Your task to perform on an android device: choose inbox layout in the gmail app Image 0: 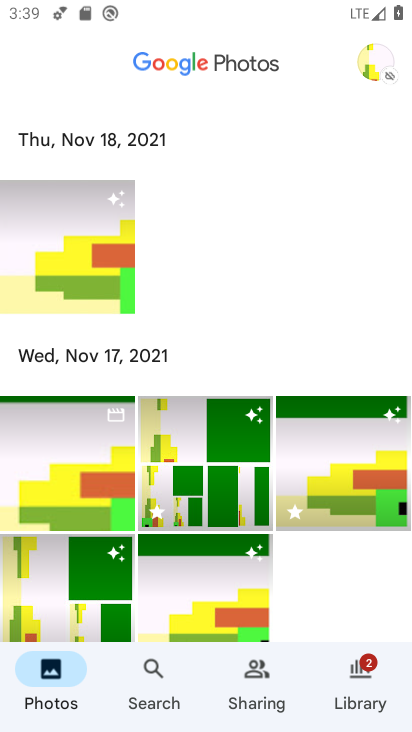
Step 0: press home button
Your task to perform on an android device: choose inbox layout in the gmail app Image 1: 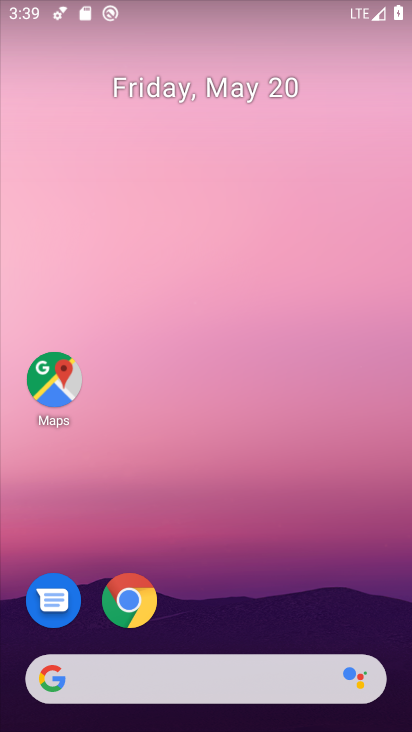
Step 1: drag from (347, 609) to (343, 258)
Your task to perform on an android device: choose inbox layout in the gmail app Image 2: 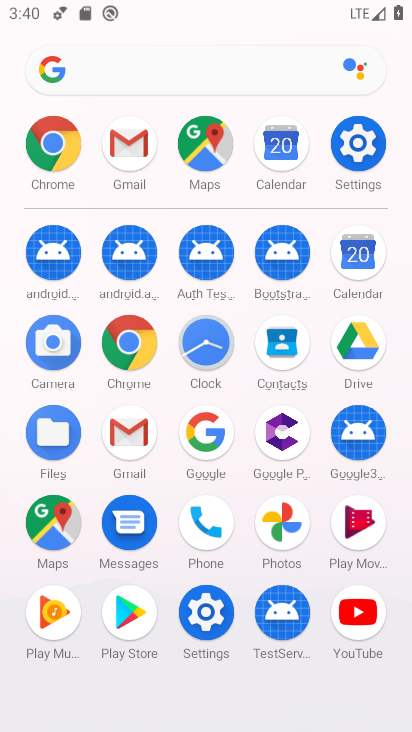
Step 2: click (143, 446)
Your task to perform on an android device: choose inbox layout in the gmail app Image 3: 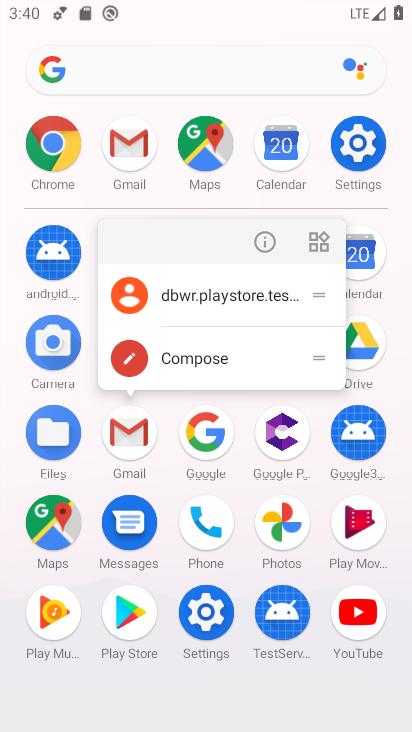
Step 3: click (140, 440)
Your task to perform on an android device: choose inbox layout in the gmail app Image 4: 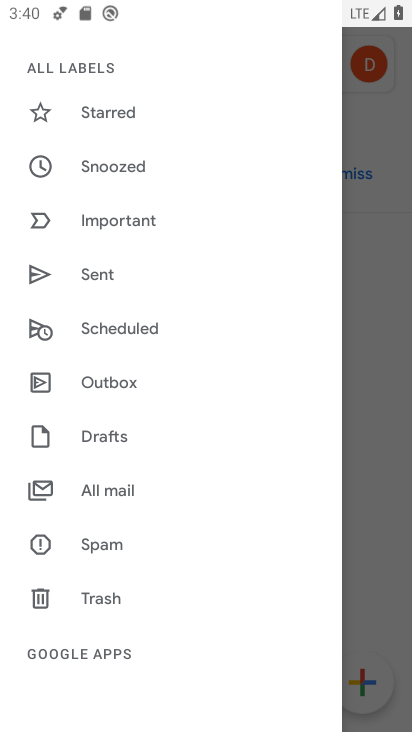
Step 4: drag from (231, 314) to (218, 413)
Your task to perform on an android device: choose inbox layout in the gmail app Image 5: 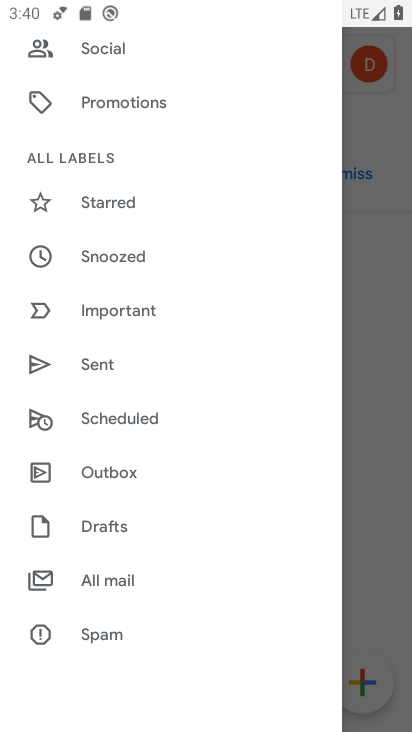
Step 5: drag from (235, 292) to (236, 387)
Your task to perform on an android device: choose inbox layout in the gmail app Image 6: 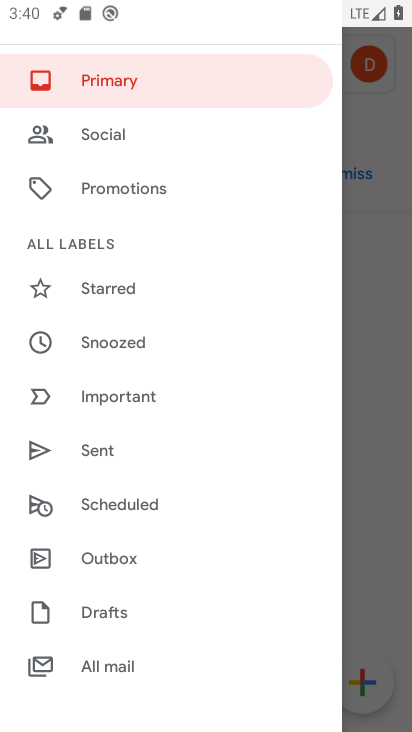
Step 6: drag from (251, 419) to (250, 359)
Your task to perform on an android device: choose inbox layout in the gmail app Image 7: 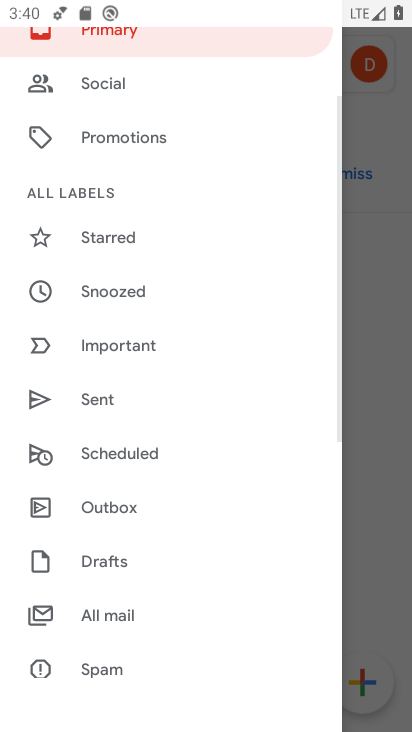
Step 7: drag from (251, 457) to (253, 389)
Your task to perform on an android device: choose inbox layout in the gmail app Image 8: 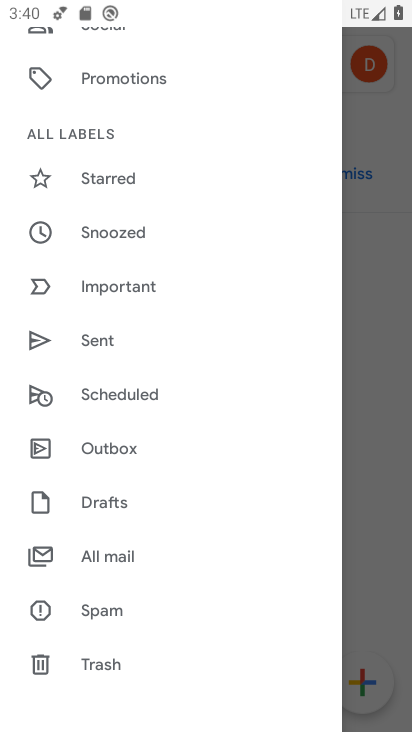
Step 8: drag from (253, 484) to (255, 406)
Your task to perform on an android device: choose inbox layout in the gmail app Image 9: 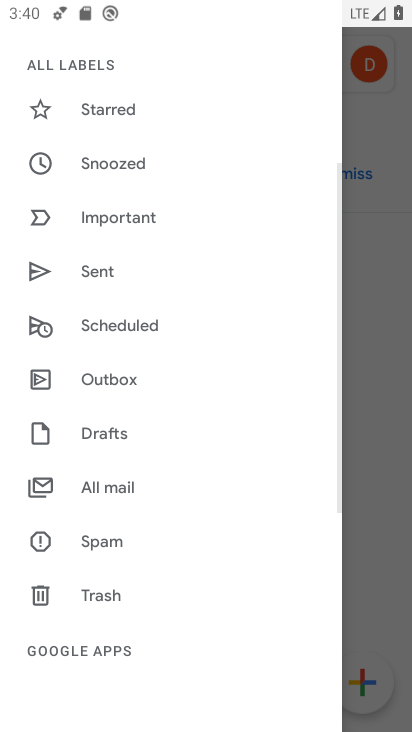
Step 9: drag from (243, 492) to (246, 390)
Your task to perform on an android device: choose inbox layout in the gmail app Image 10: 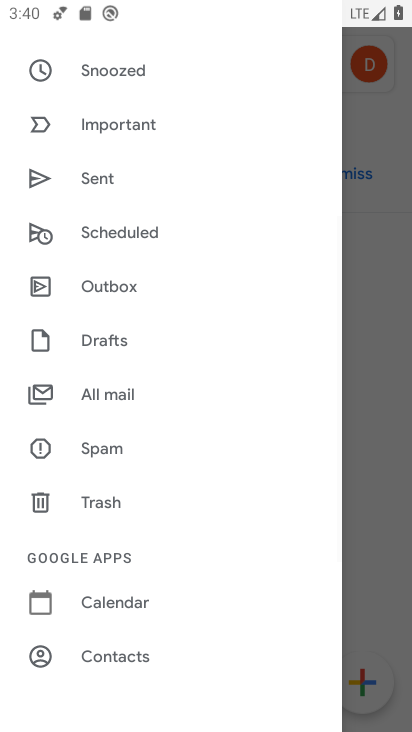
Step 10: drag from (237, 518) to (287, 352)
Your task to perform on an android device: choose inbox layout in the gmail app Image 11: 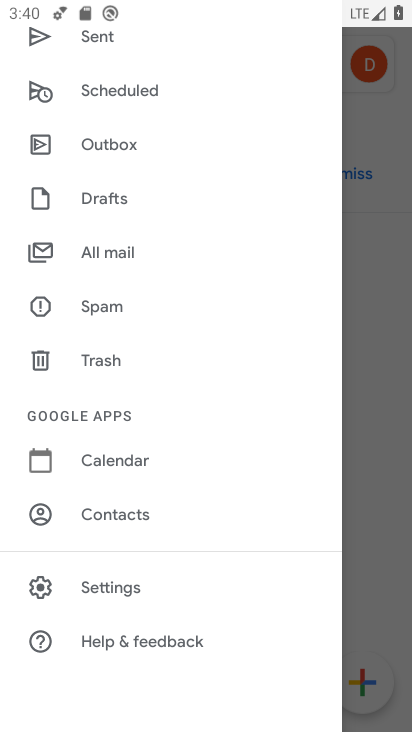
Step 11: click (158, 603)
Your task to perform on an android device: choose inbox layout in the gmail app Image 12: 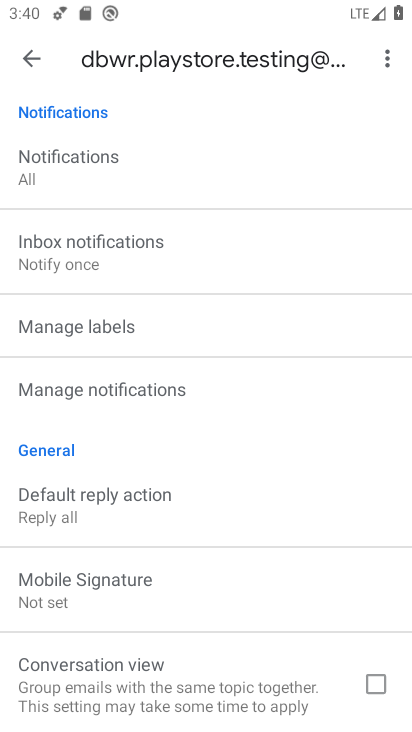
Step 12: drag from (227, 528) to (234, 485)
Your task to perform on an android device: choose inbox layout in the gmail app Image 13: 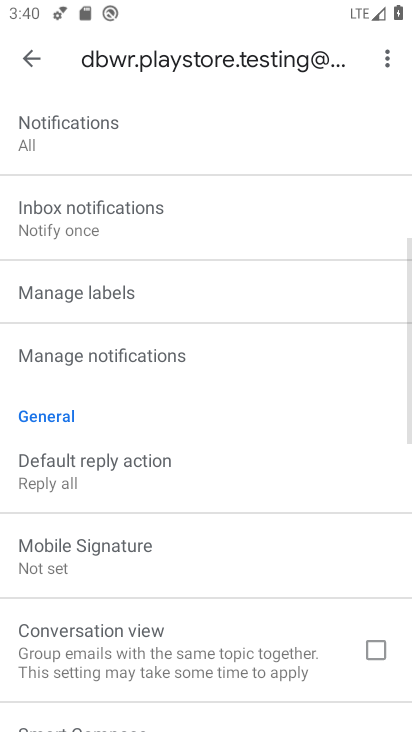
Step 13: drag from (237, 596) to (248, 505)
Your task to perform on an android device: choose inbox layout in the gmail app Image 14: 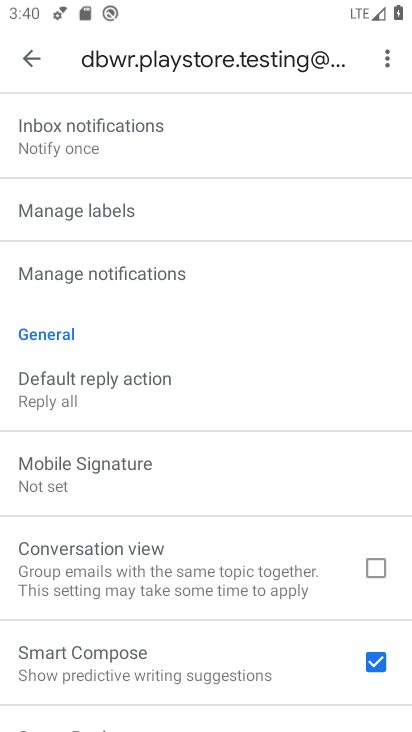
Step 14: drag from (234, 600) to (248, 505)
Your task to perform on an android device: choose inbox layout in the gmail app Image 15: 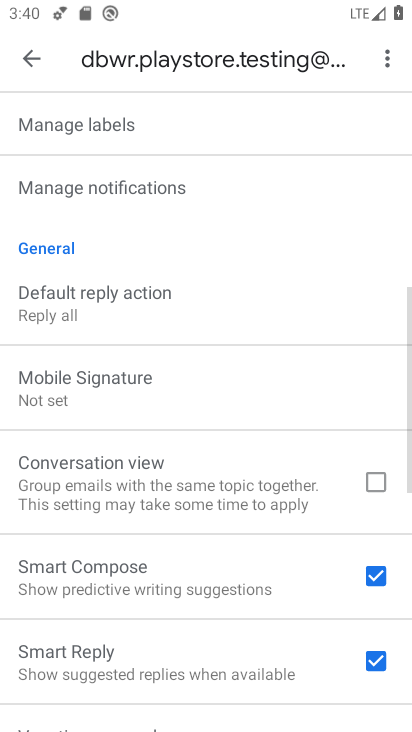
Step 15: drag from (247, 615) to (260, 533)
Your task to perform on an android device: choose inbox layout in the gmail app Image 16: 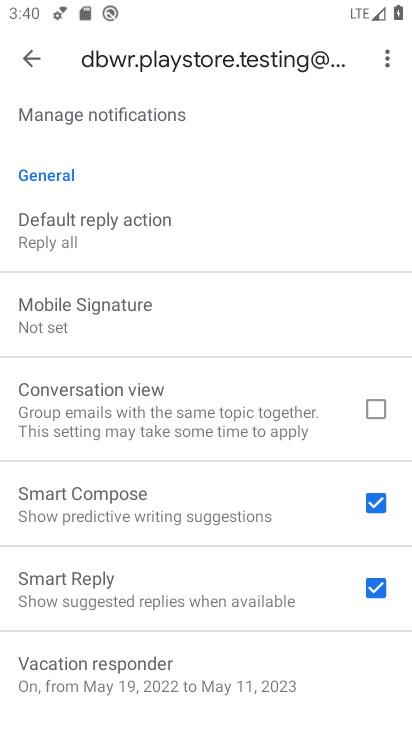
Step 16: drag from (246, 642) to (262, 557)
Your task to perform on an android device: choose inbox layout in the gmail app Image 17: 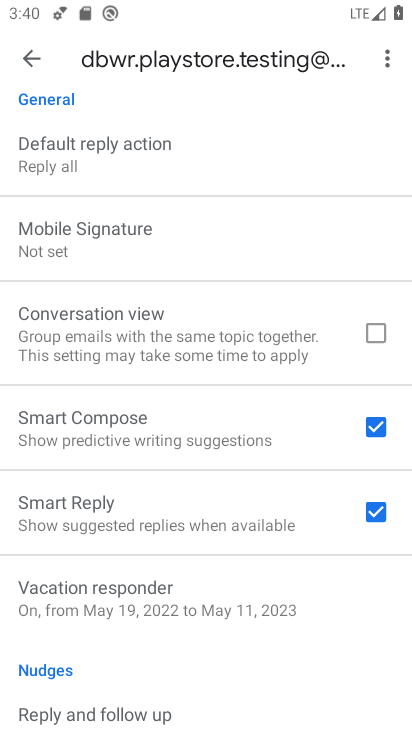
Step 17: drag from (258, 655) to (273, 559)
Your task to perform on an android device: choose inbox layout in the gmail app Image 18: 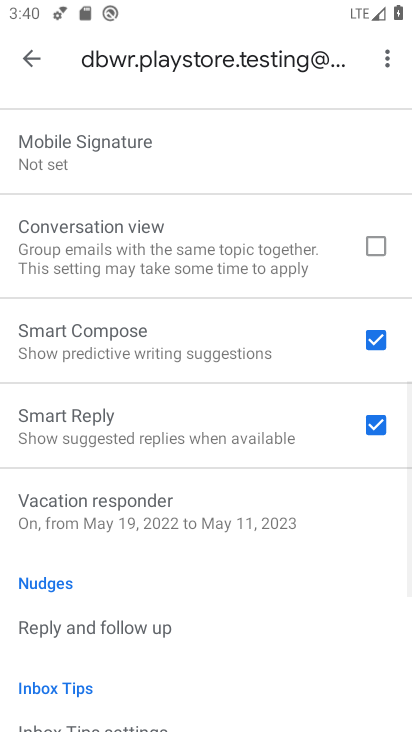
Step 18: drag from (266, 662) to (269, 482)
Your task to perform on an android device: choose inbox layout in the gmail app Image 19: 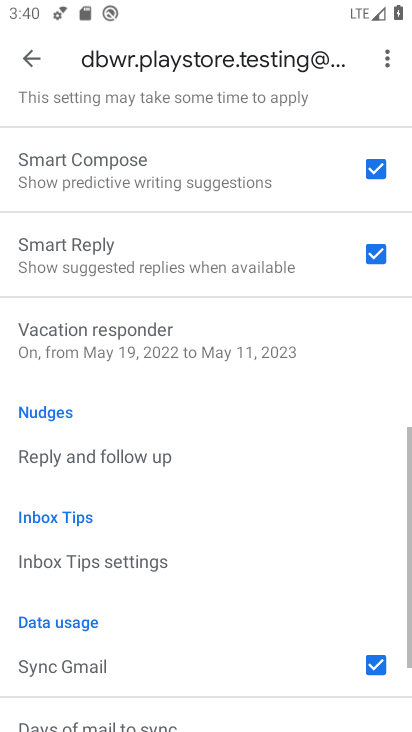
Step 19: drag from (263, 453) to (262, 524)
Your task to perform on an android device: choose inbox layout in the gmail app Image 20: 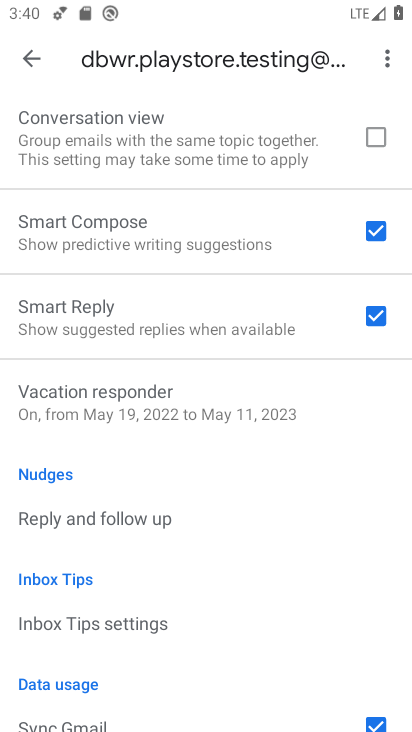
Step 20: drag from (262, 409) to (262, 509)
Your task to perform on an android device: choose inbox layout in the gmail app Image 21: 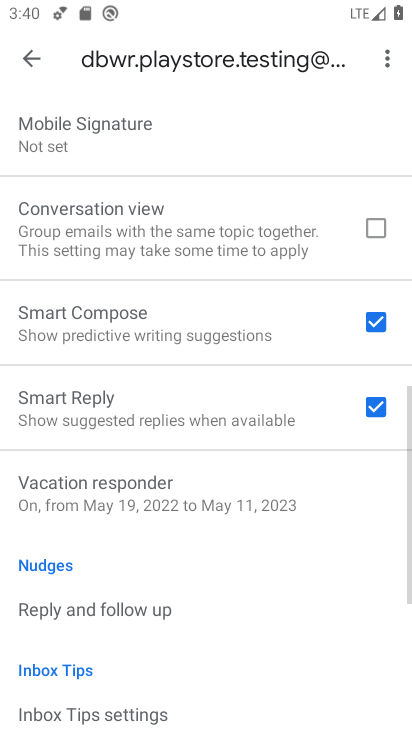
Step 21: drag from (260, 387) to (261, 479)
Your task to perform on an android device: choose inbox layout in the gmail app Image 22: 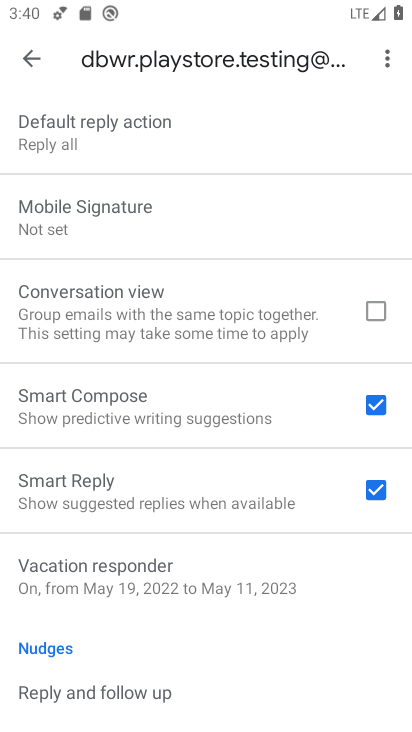
Step 22: drag from (254, 376) to (254, 447)
Your task to perform on an android device: choose inbox layout in the gmail app Image 23: 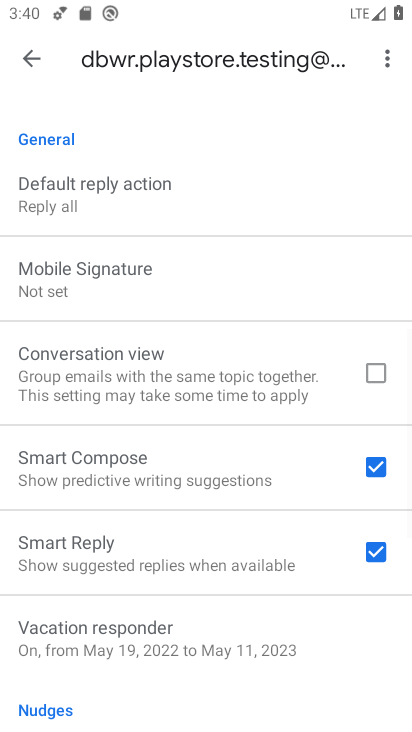
Step 23: drag from (242, 335) to (243, 434)
Your task to perform on an android device: choose inbox layout in the gmail app Image 24: 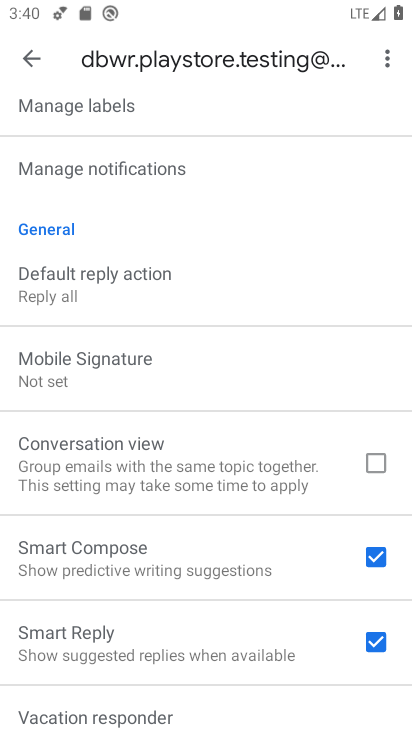
Step 24: drag from (233, 311) to (235, 427)
Your task to perform on an android device: choose inbox layout in the gmail app Image 25: 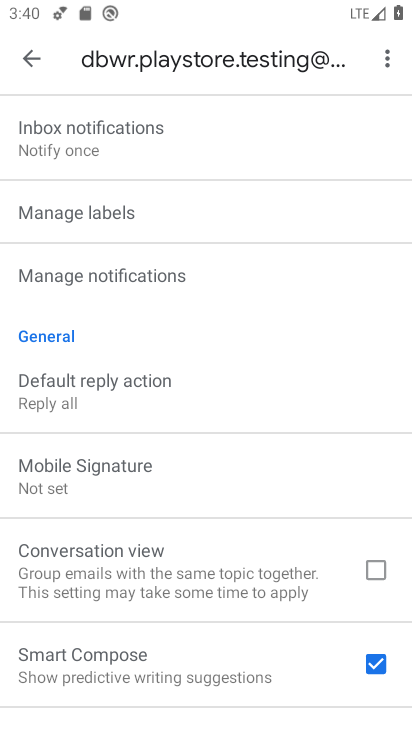
Step 25: drag from (223, 245) to (222, 382)
Your task to perform on an android device: choose inbox layout in the gmail app Image 26: 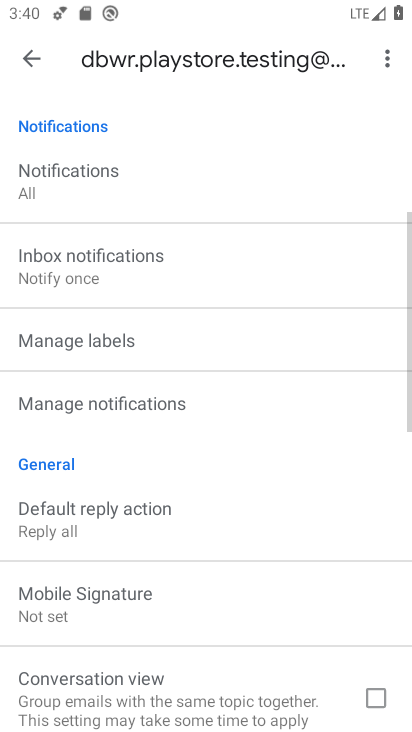
Step 26: drag from (227, 239) to (222, 369)
Your task to perform on an android device: choose inbox layout in the gmail app Image 27: 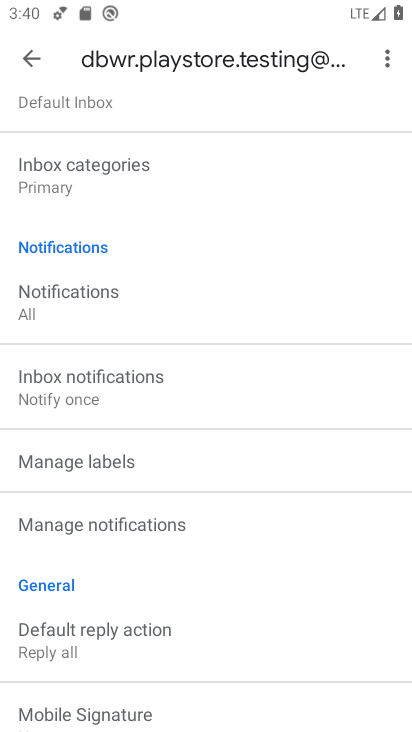
Step 27: drag from (214, 245) to (216, 360)
Your task to perform on an android device: choose inbox layout in the gmail app Image 28: 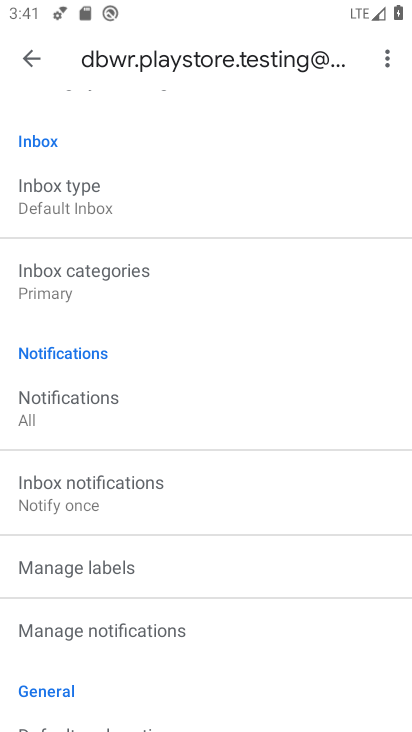
Step 28: click (84, 281)
Your task to perform on an android device: choose inbox layout in the gmail app Image 29: 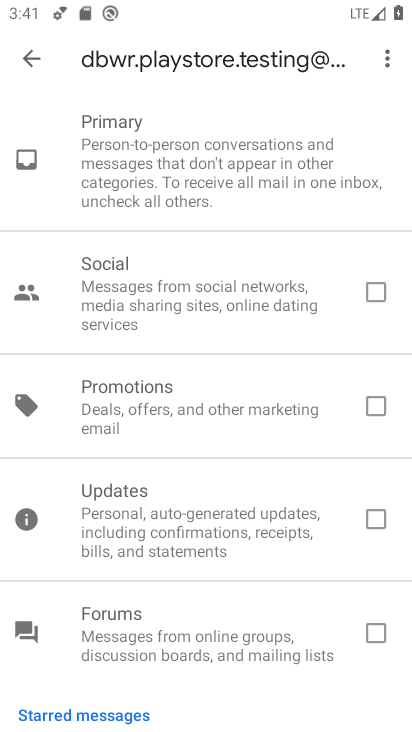
Step 29: click (28, 63)
Your task to perform on an android device: choose inbox layout in the gmail app Image 30: 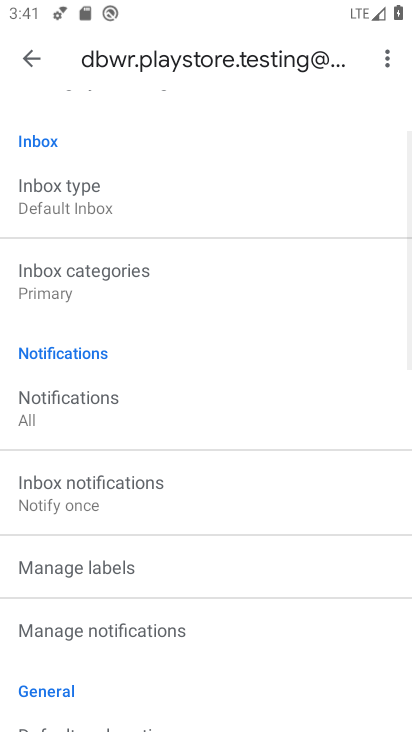
Step 30: drag from (141, 178) to (149, 314)
Your task to perform on an android device: choose inbox layout in the gmail app Image 31: 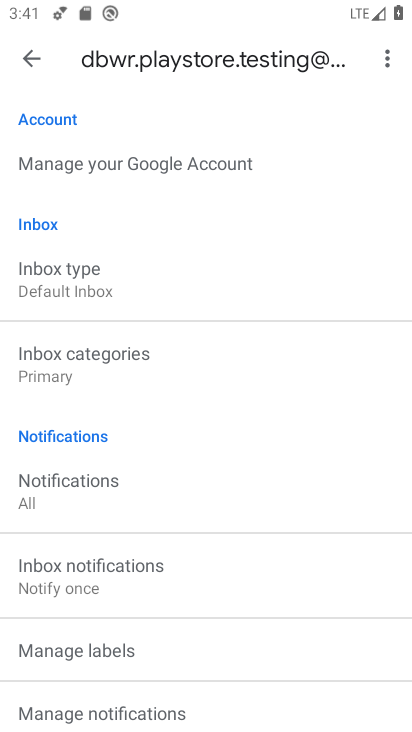
Step 31: click (86, 302)
Your task to perform on an android device: choose inbox layout in the gmail app Image 32: 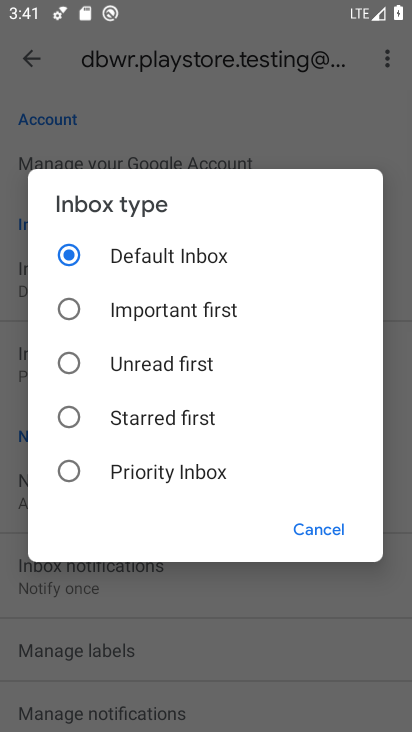
Step 32: click (154, 301)
Your task to perform on an android device: choose inbox layout in the gmail app Image 33: 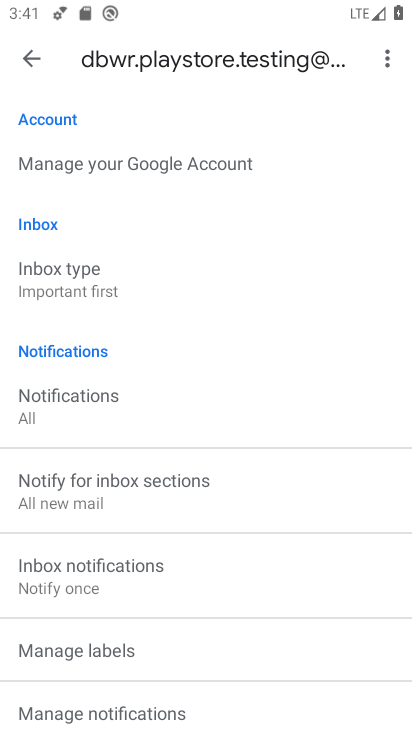
Step 33: task complete